Your task to perform on an android device: stop showing notifications on the lock screen Image 0: 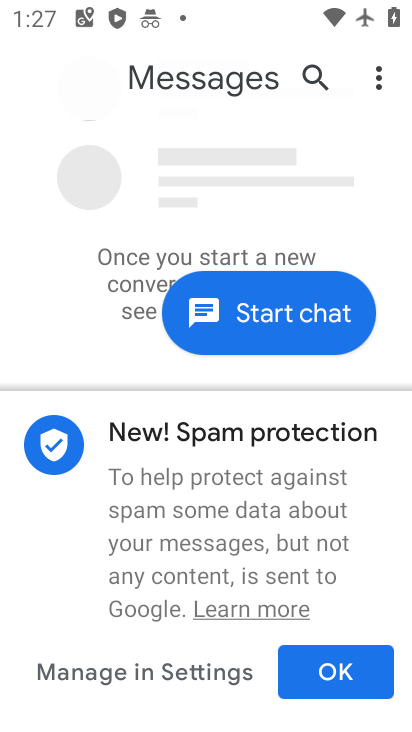
Step 0: press home button
Your task to perform on an android device: stop showing notifications on the lock screen Image 1: 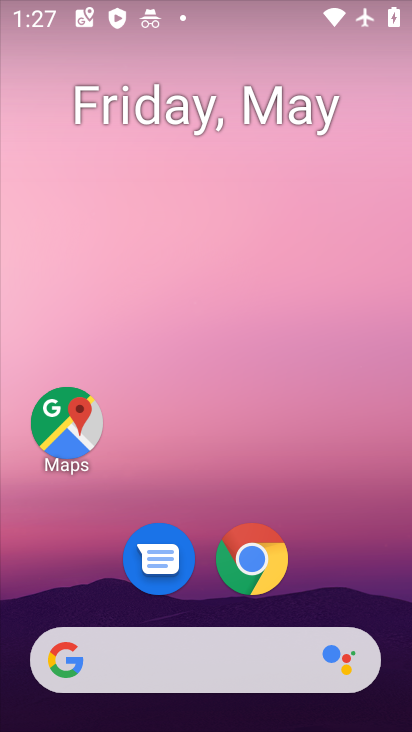
Step 1: drag from (326, 457) to (340, 204)
Your task to perform on an android device: stop showing notifications on the lock screen Image 2: 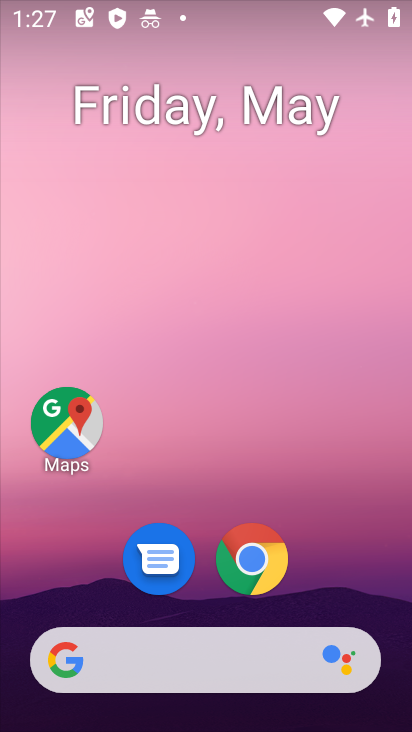
Step 2: drag from (321, 471) to (363, 106)
Your task to perform on an android device: stop showing notifications on the lock screen Image 3: 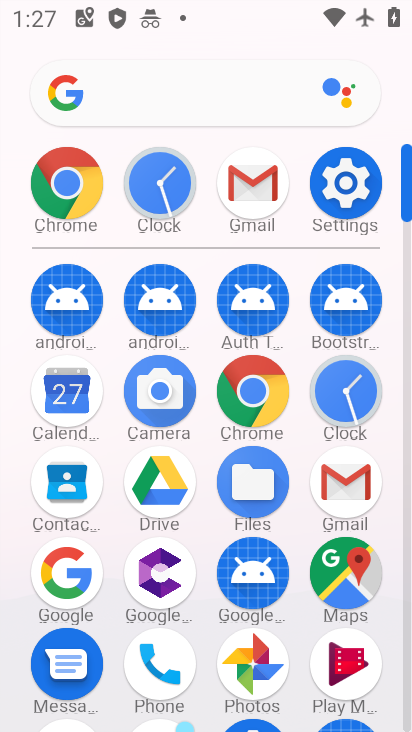
Step 3: click (355, 172)
Your task to perform on an android device: stop showing notifications on the lock screen Image 4: 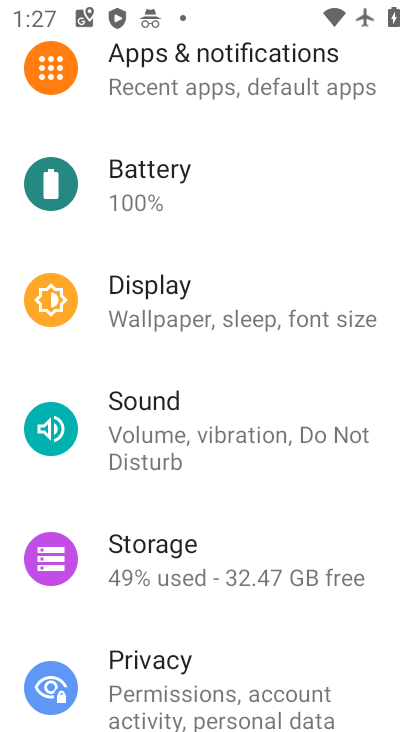
Step 4: click (247, 64)
Your task to perform on an android device: stop showing notifications on the lock screen Image 5: 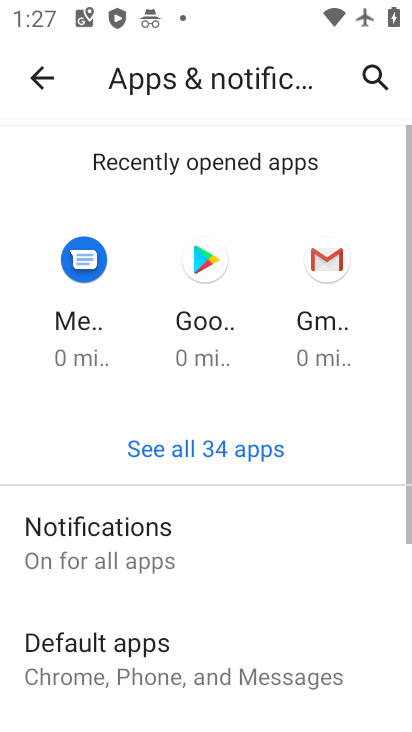
Step 5: click (131, 528)
Your task to perform on an android device: stop showing notifications on the lock screen Image 6: 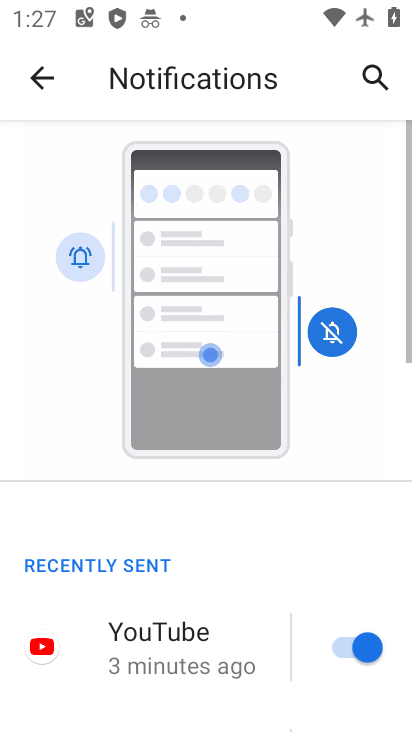
Step 6: drag from (223, 569) to (335, 91)
Your task to perform on an android device: stop showing notifications on the lock screen Image 7: 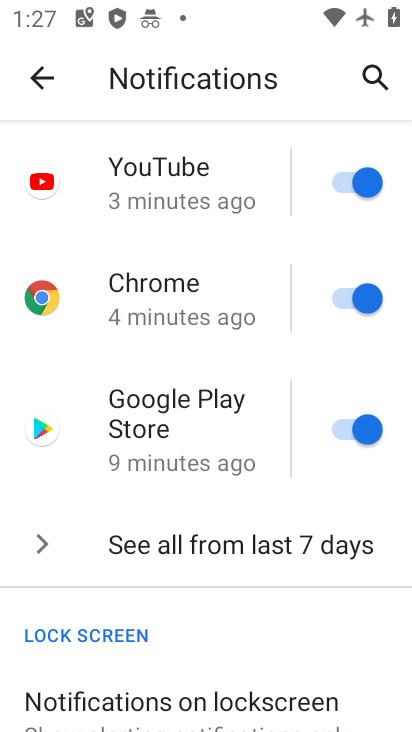
Step 7: click (236, 689)
Your task to perform on an android device: stop showing notifications on the lock screen Image 8: 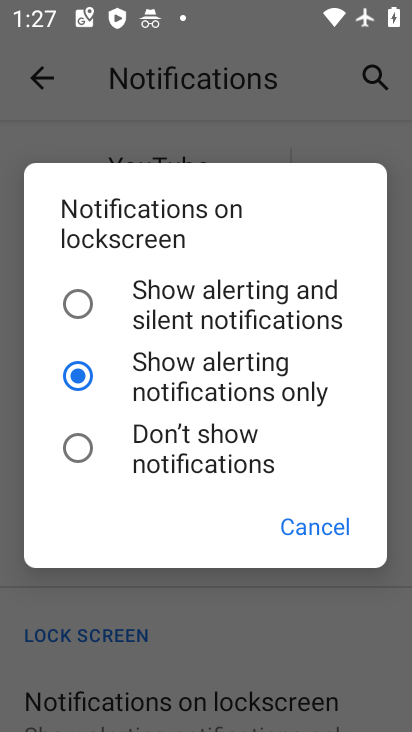
Step 8: click (225, 429)
Your task to perform on an android device: stop showing notifications on the lock screen Image 9: 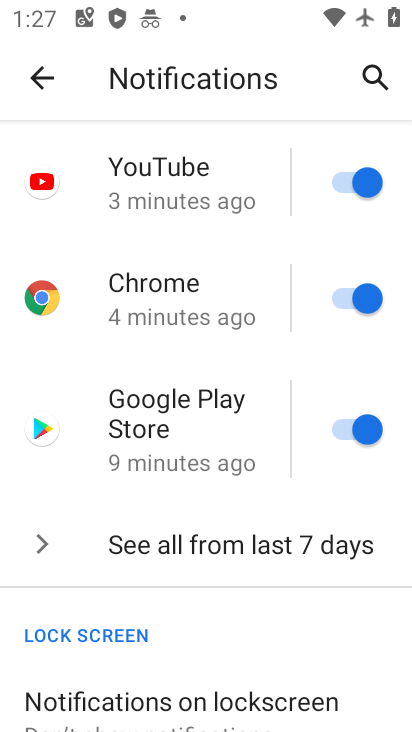
Step 9: task complete